Your task to perform on an android device: turn on showing notifications on the lock screen Image 0: 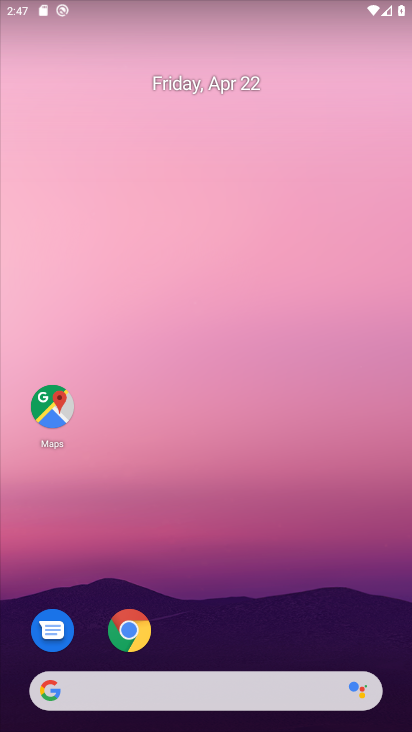
Step 0: drag from (257, 430) to (235, 42)
Your task to perform on an android device: turn on showing notifications on the lock screen Image 1: 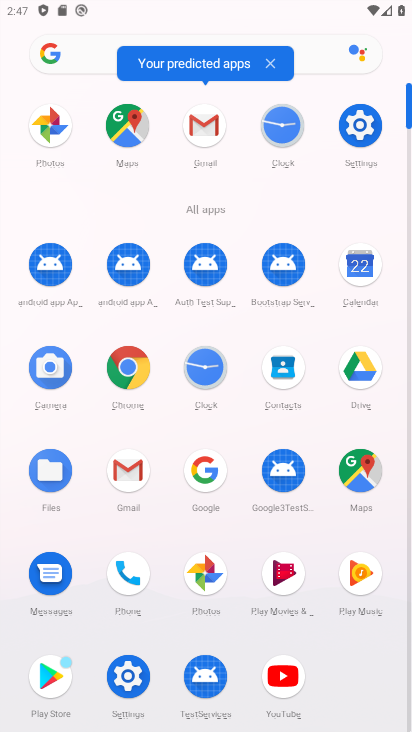
Step 1: drag from (8, 409) to (4, 215)
Your task to perform on an android device: turn on showing notifications on the lock screen Image 2: 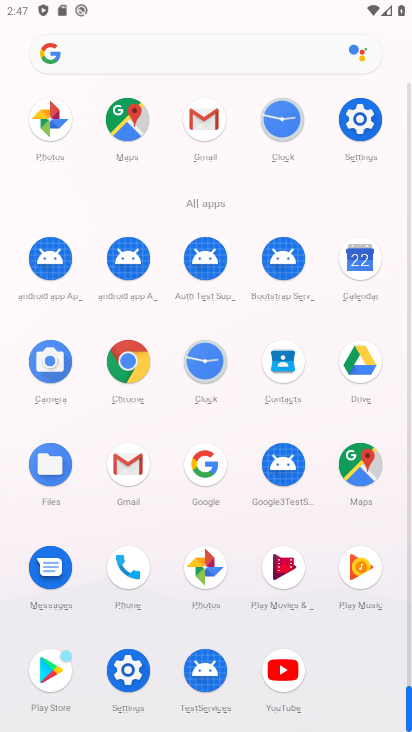
Step 2: drag from (10, 538) to (0, 408)
Your task to perform on an android device: turn on showing notifications on the lock screen Image 3: 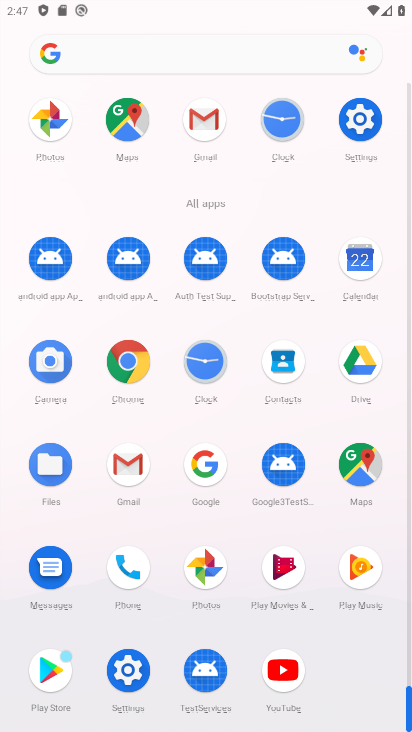
Step 3: click (361, 114)
Your task to perform on an android device: turn on showing notifications on the lock screen Image 4: 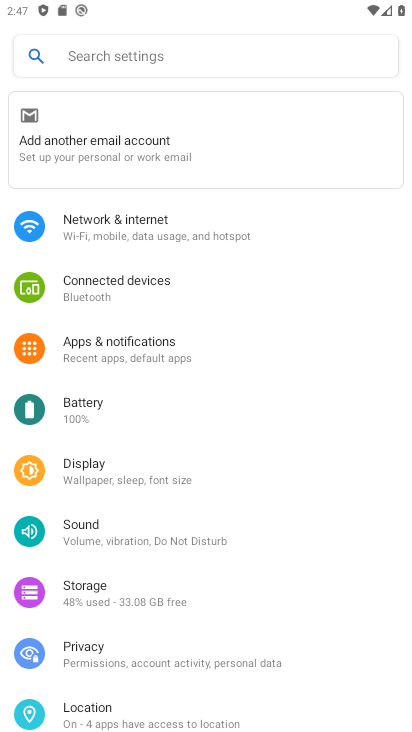
Step 4: drag from (320, 475) to (329, 189)
Your task to perform on an android device: turn on showing notifications on the lock screen Image 5: 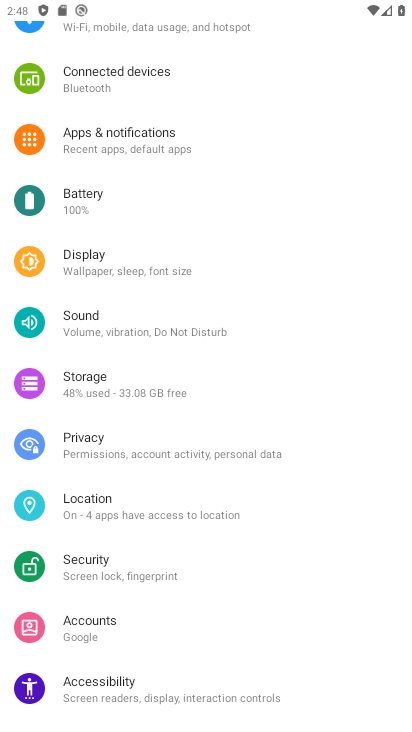
Step 5: click (131, 122)
Your task to perform on an android device: turn on showing notifications on the lock screen Image 6: 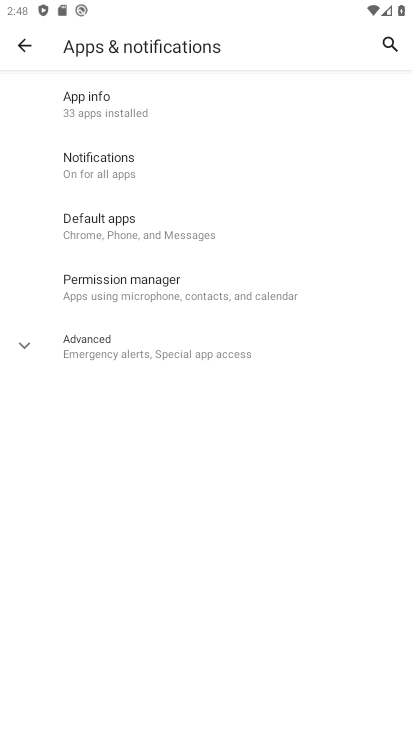
Step 6: click (27, 335)
Your task to perform on an android device: turn on showing notifications on the lock screen Image 7: 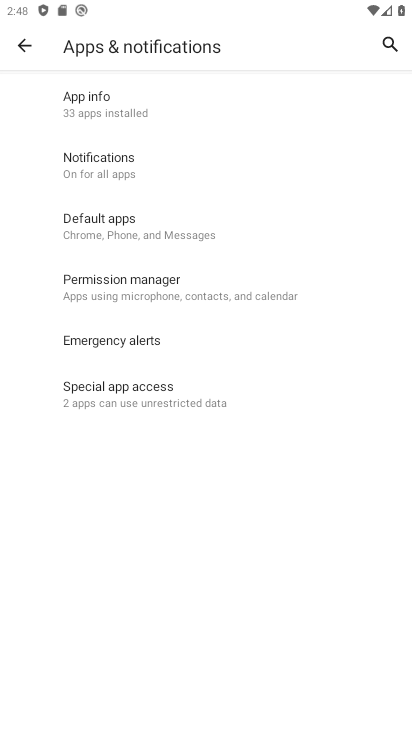
Step 7: click (100, 158)
Your task to perform on an android device: turn on showing notifications on the lock screen Image 8: 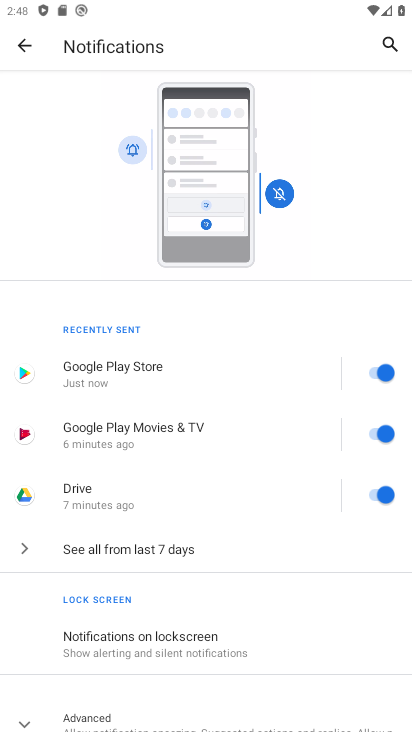
Step 8: drag from (233, 573) to (287, 138)
Your task to perform on an android device: turn on showing notifications on the lock screen Image 9: 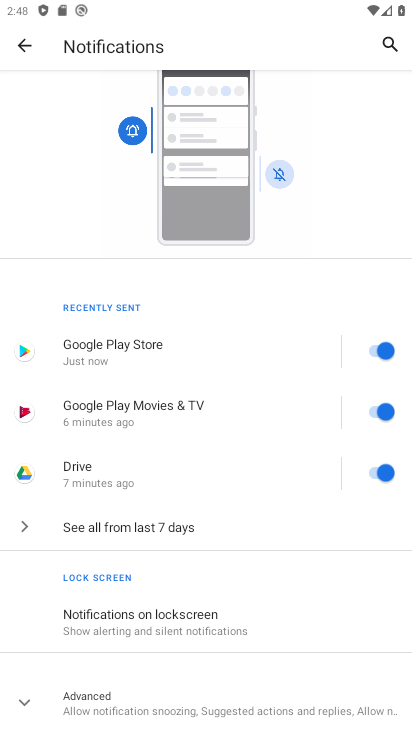
Step 9: click (135, 621)
Your task to perform on an android device: turn on showing notifications on the lock screen Image 10: 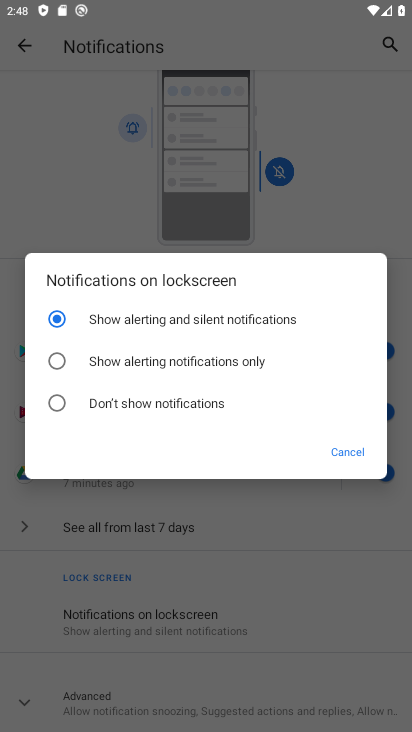
Step 10: click (158, 314)
Your task to perform on an android device: turn on showing notifications on the lock screen Image 11: 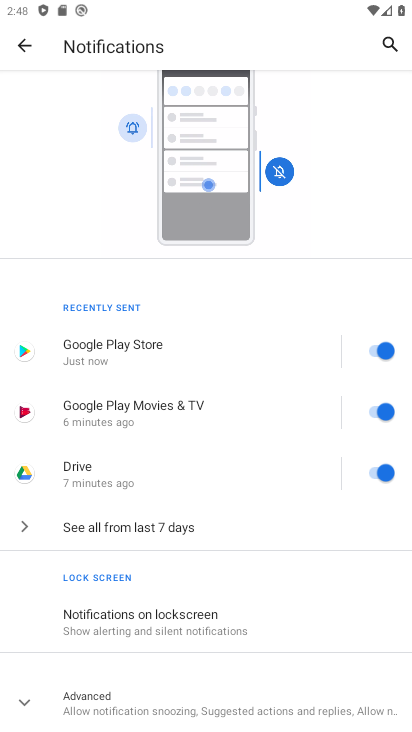
Step 11: click (24, 699)
Your task to perform on an android device: turn on showing notifications on the lock screen Image 12: 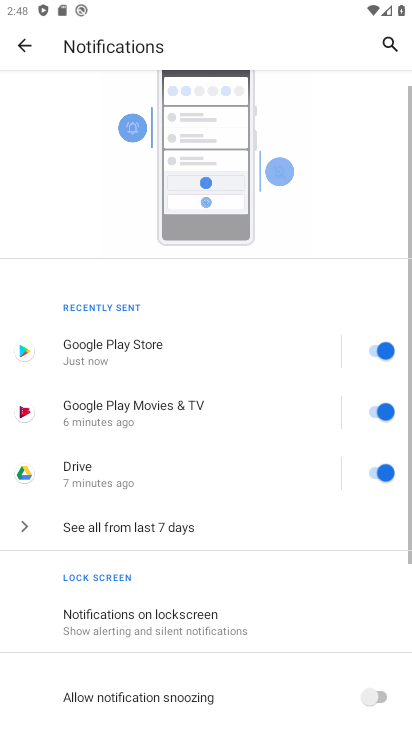
Step 12: task complete